Your task to perform on an android device: empty trash in google photos Image 0: 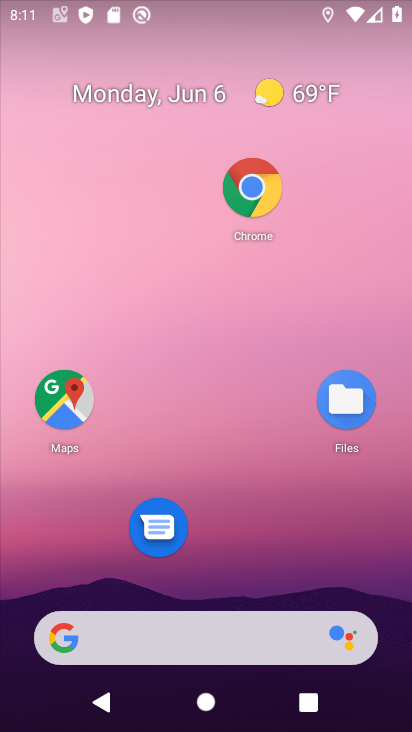
Step 0: drag from (219, 469) to (183, 49)
Your task to perform on an android device: empty trash in google photos Image 1: 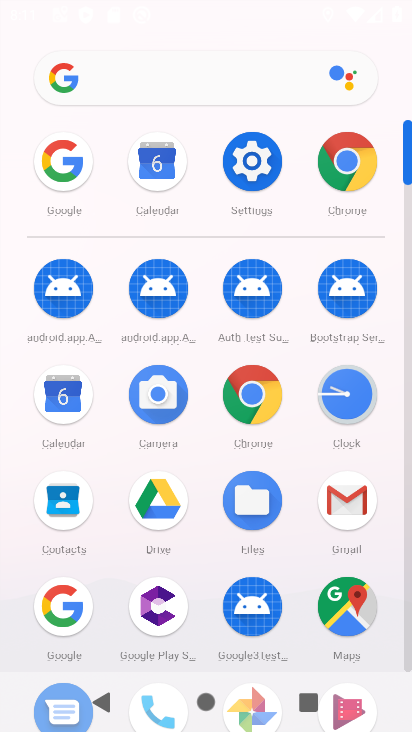
Step 1: drag from (202, 470) to (157, 76)
Your task to perform on an android device: empty trash in google photos Image 2: 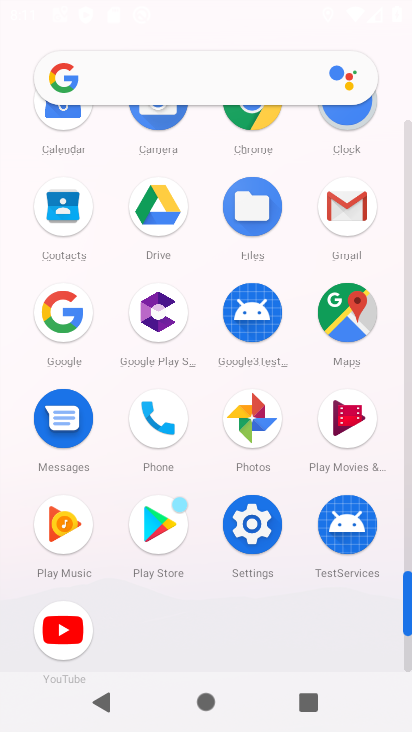
Step 2: click (252, 421)
Your task to perform on an android device: empty trash in google photos Image 3: 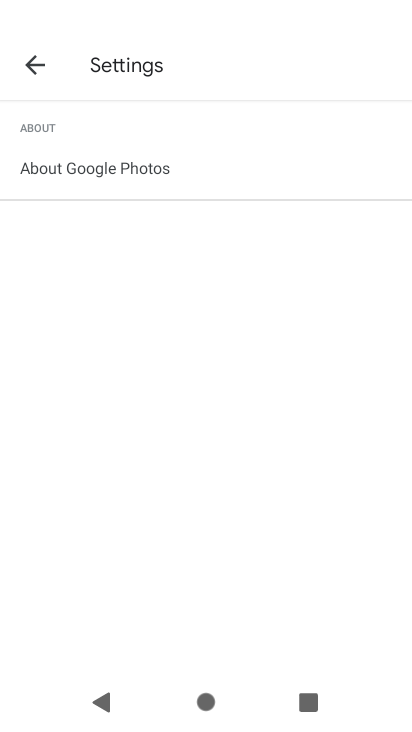
Step 3: press back button
Your task to perform on an android device: empty trash in google photos Image 4: 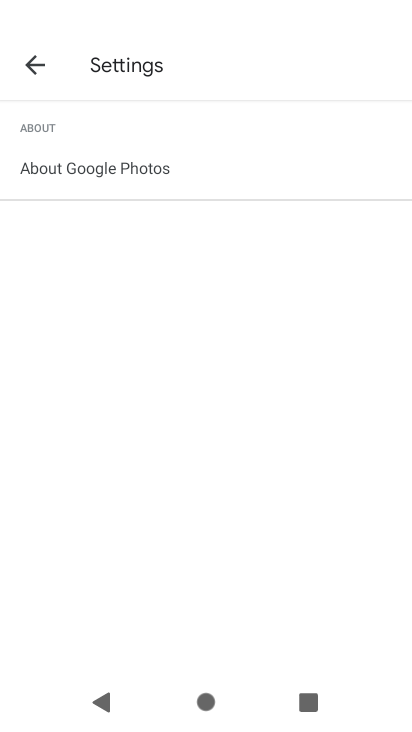
Step 4: press back button
Your task to perform on an android device: empty trash in google photos Image 5: 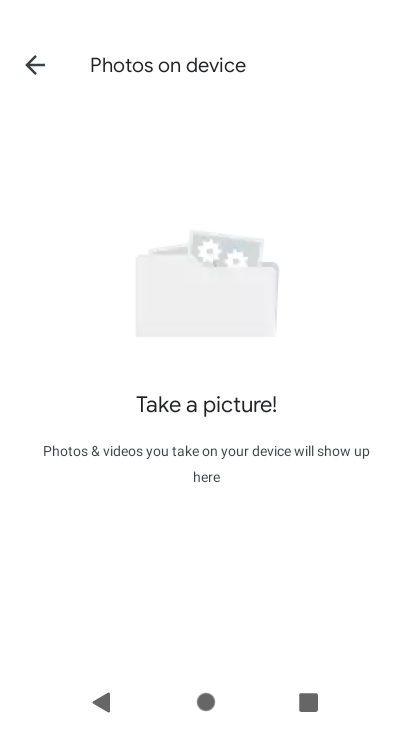
Step 5: press back button
Your task to perform on an android device: empty trash in google photos Image 6: 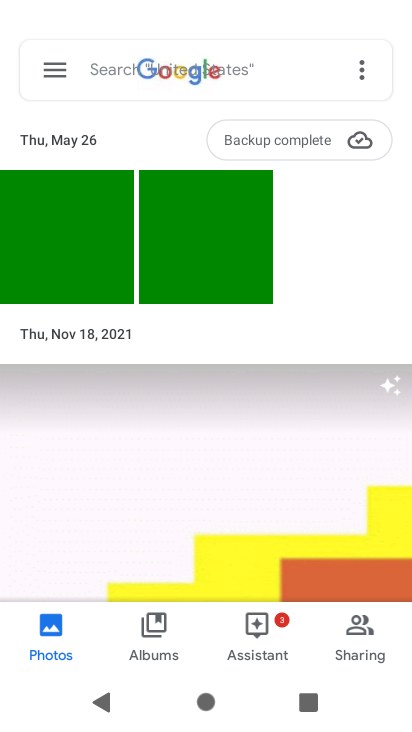
Step 6: click (46, 69)
Your task to perform on an android device: empty trash in google photos Image 7: 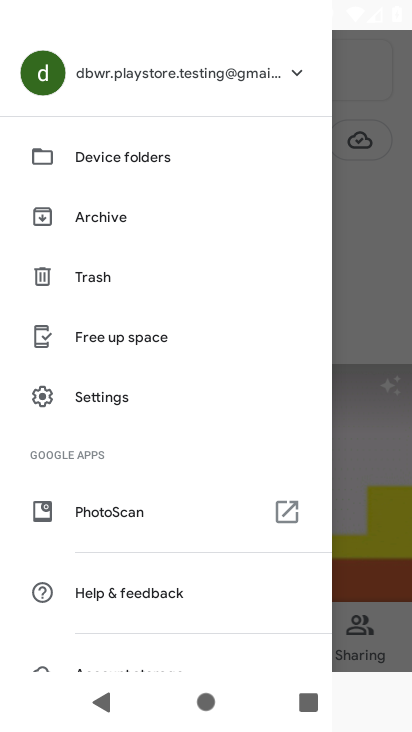
Step 7: click (139, 403)
Your task to perform on an android device: empty trash in google photos Image 8: 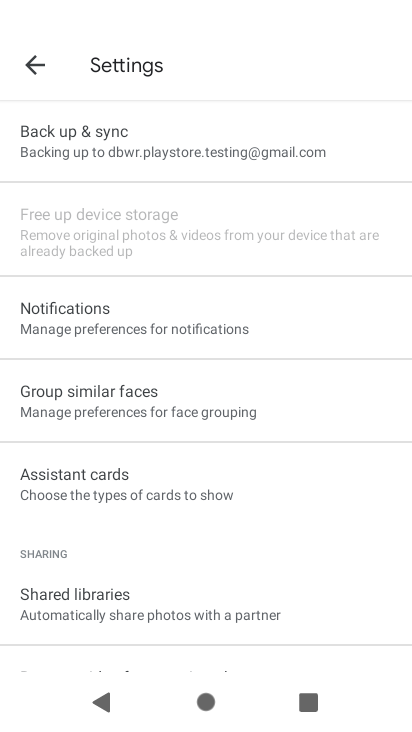
Step 8: press back button
Your task to perform on an android device: empty trash in google photos Image 9: 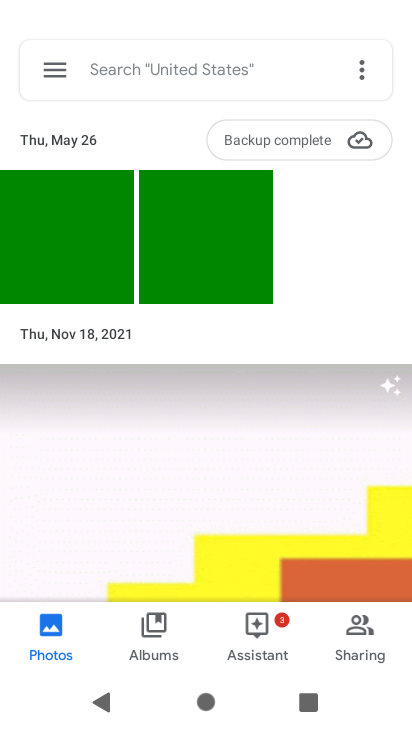
Step 9: click (55, 65)
Your task to perform on an android device: empty trash in google photos Image 10: 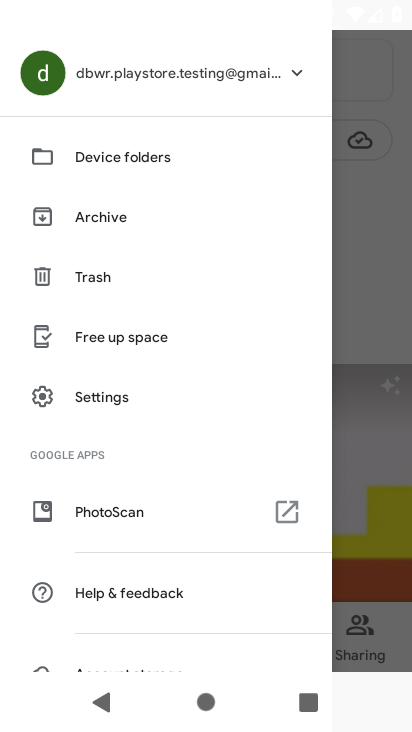
Step 10: click (89, 270)
Your task to perform on an android device: empty trash in google photos Image 11: 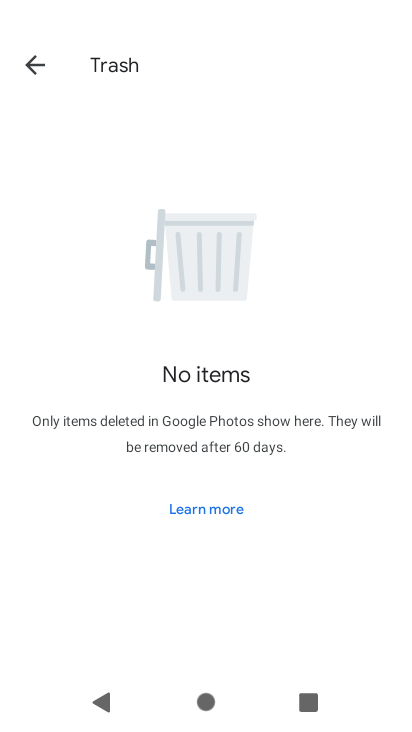
Step 11: task complete